Your task to perform on an android device: Open eBay Image 0: 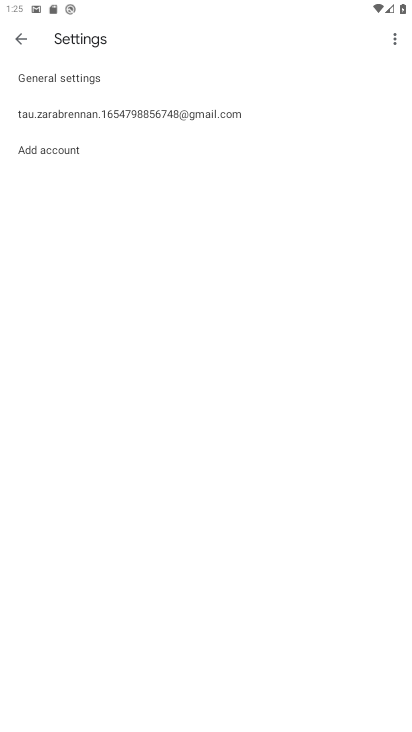
Step 0: press home button
Your task to perform on an android device: Open eBay Image 1: 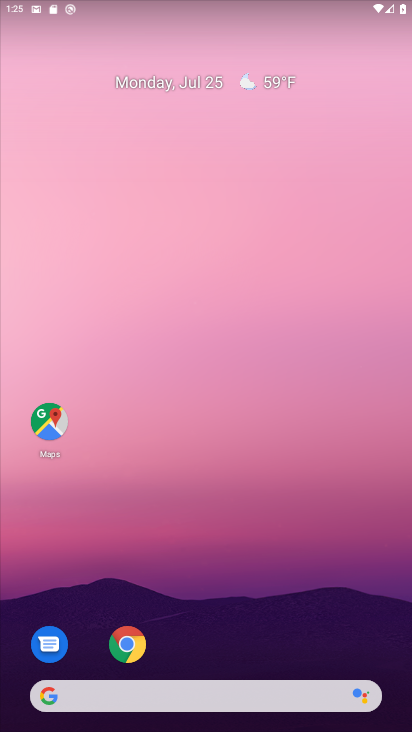
Step 1: click (123, 639)
Your task to perform on an android device: Open eBay Image 2: 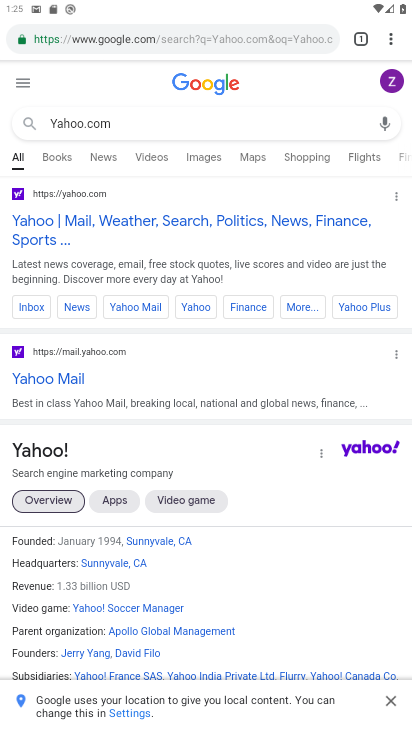
Step 2: click (321, 40)
Your task to perform on an android device: Open eBay Image 3: 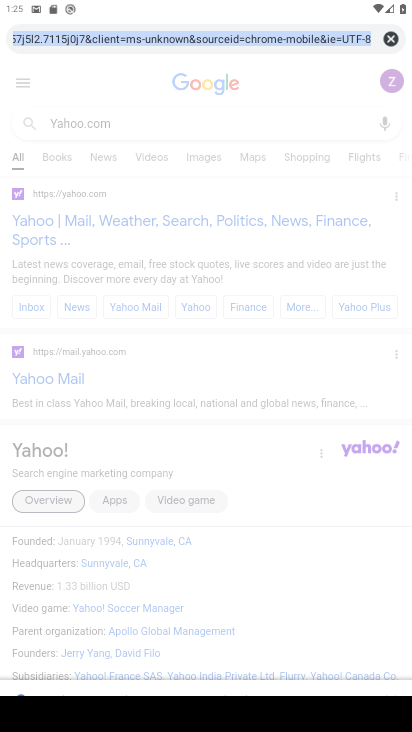
Step 3: click (389, 38)
Your task to perform on an android device: Open eBay Image 4: 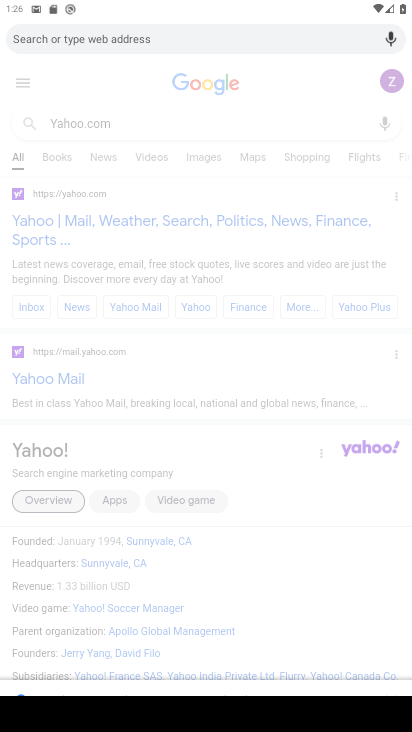
Step 4: type "ebay"
Your task to perform on an android device: Open eBay Image 5: 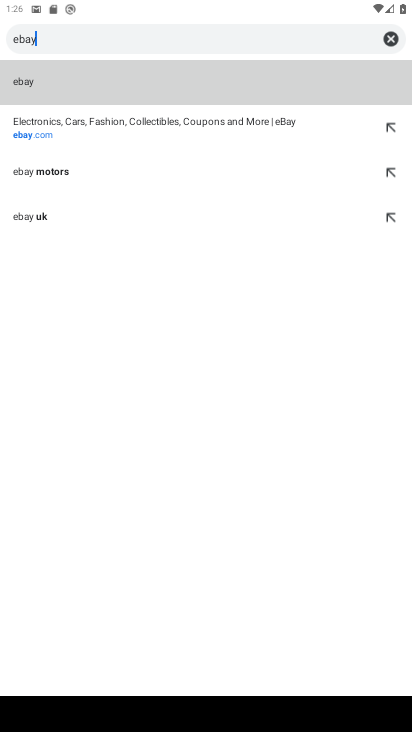
Step 5: click (33, 85)
Your task to perform on an android device: Open eBay Image 6: 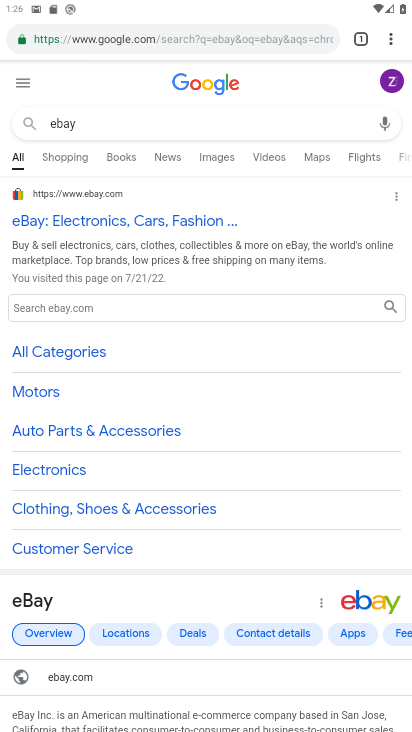
Step 6: click (39, 219)
Your task to perform on an android device: Open eBay Image 7: 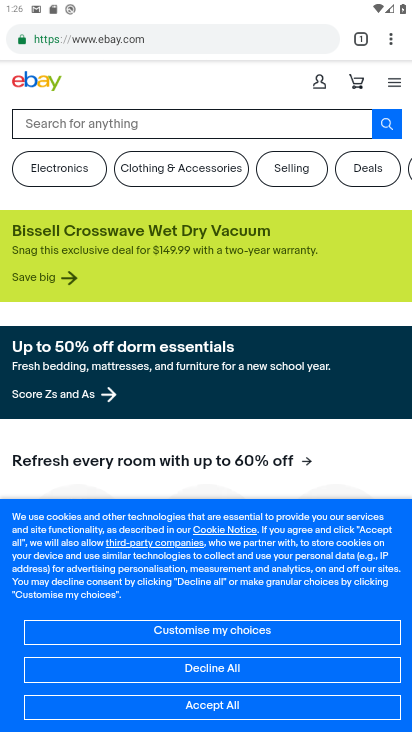
Step 7: task complete